Your task to perform on an android device: turn notification dots off Image 0: 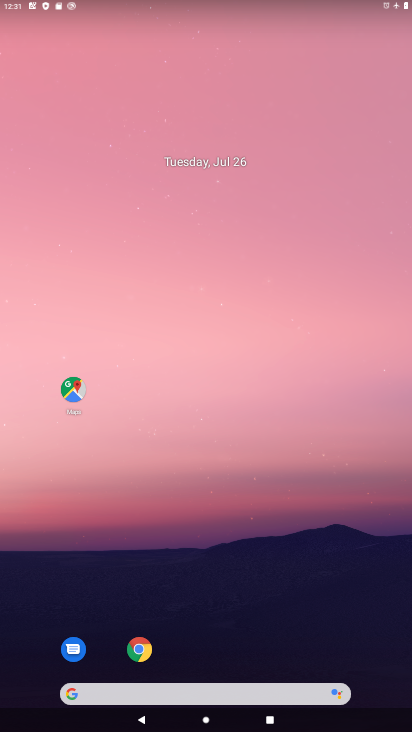
Step 0: drag from (222, 723) to (211, 99)
Your task to perform on an android device: turn notification dots off Image 1: 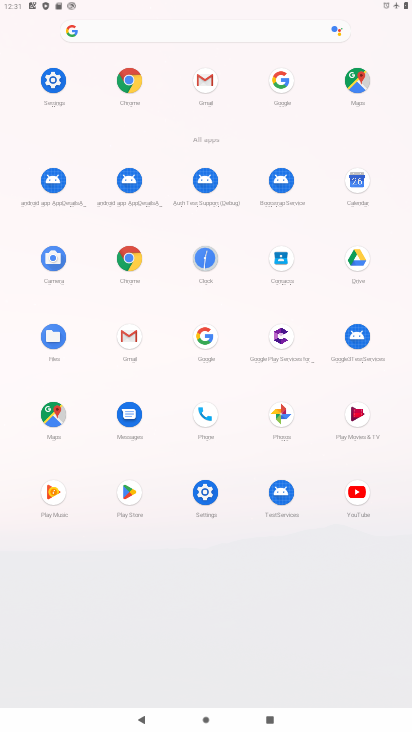
Step 1: click (56, 78)
Your task to perform on an android device: turn notification dots off Image 2: 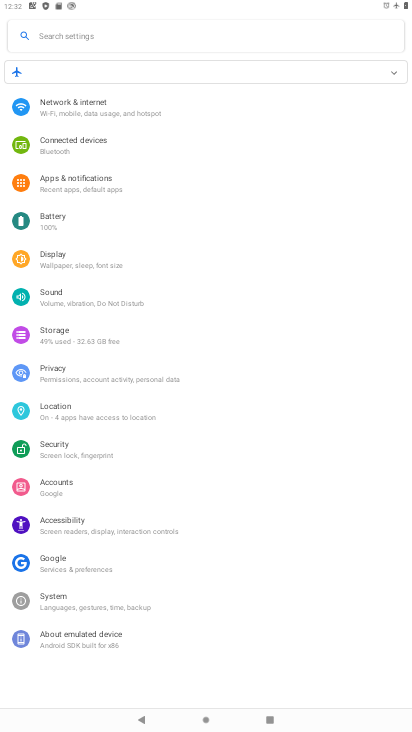
Step 2: click (75, 176)
Your task to perform on an android device: turn notification dots off Image 3: 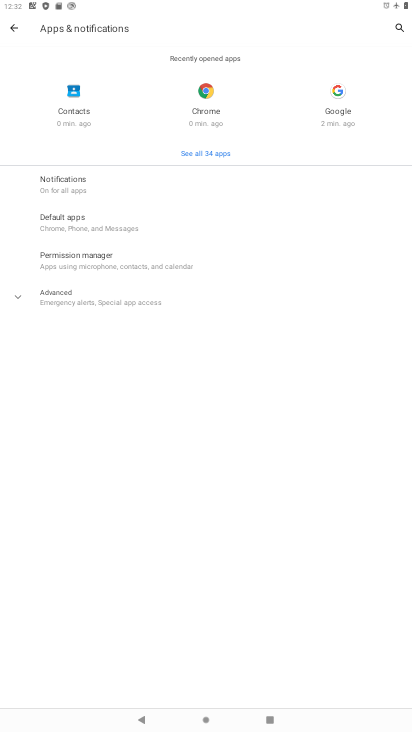
Step 3: click (44, 180)
Your task to perform on an android device: turn notification dots off Image 4: 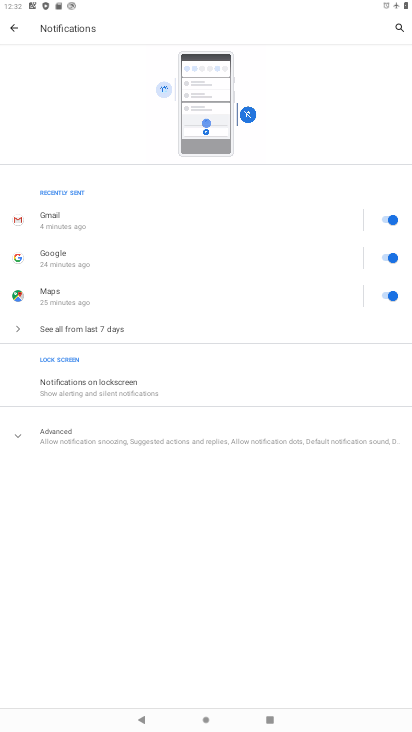
Step 4: click (66, 430)
Your task to perform on an android device: turn notification dots off Image 5: 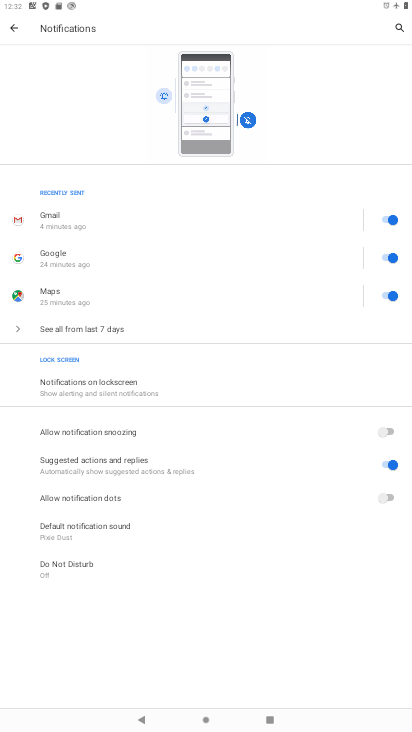
Step 5: task complete